Your task to perform on an android device: What's the weather going to be this weekend? Image 0: 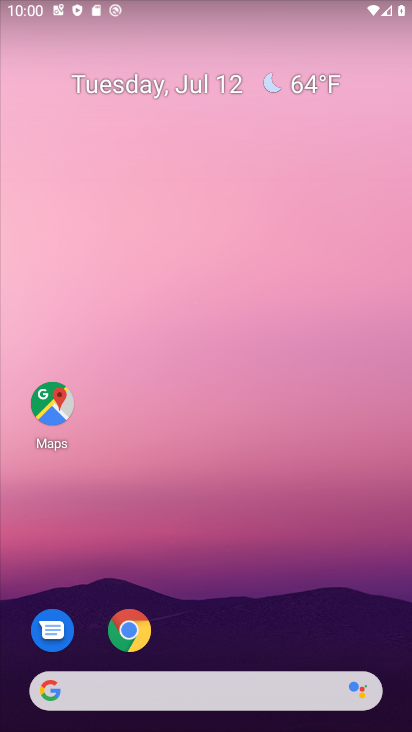
Step 0: drag from (302, 607) to (333, 0)
Your task to perform on an android device: What's the weather going to be this weekend? Image 1: 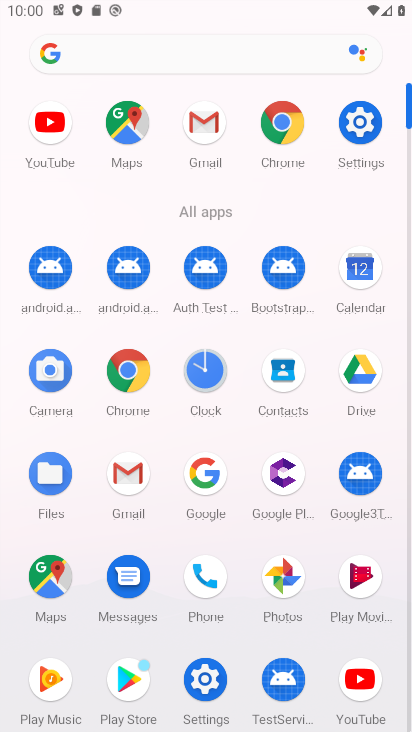
Step 1: click (203, 477)
Your task to perform on an android device: What's the weather going to be this weekend? Image 2: 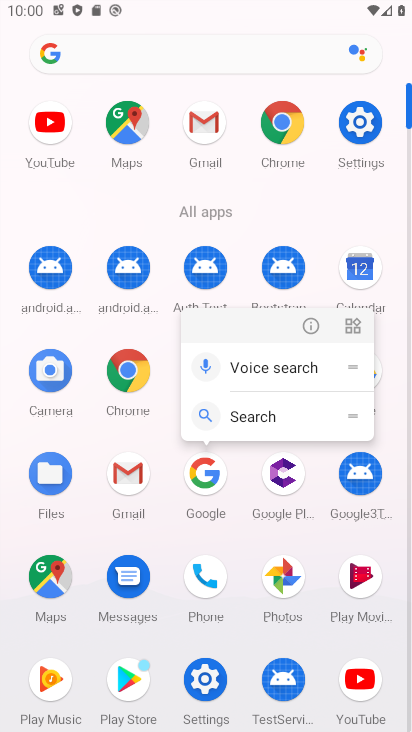
Step 2: click (213, 485)
Your task to perform on an android device: What's the weather going to be this weekend? Image 3: 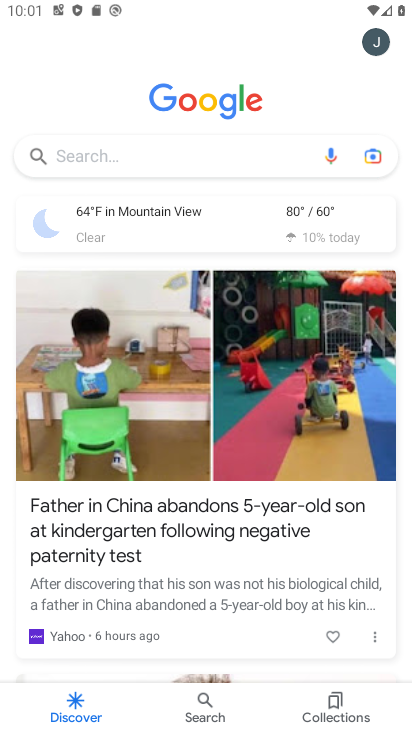
Step 3: click (164, 221)
Your task to perform on an android device: What's the weather going to be this weekend? Image 4: 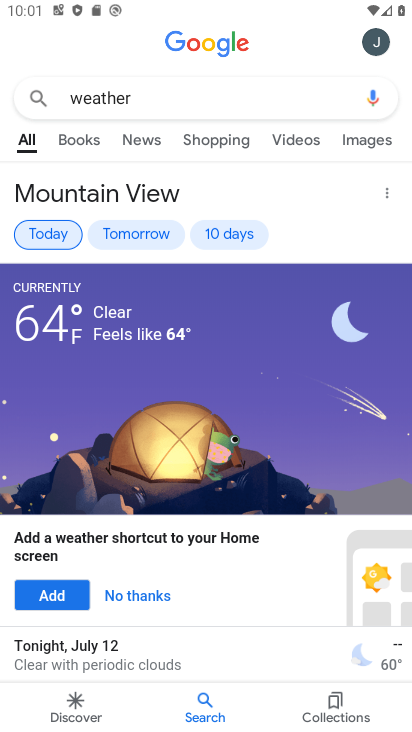
Step 4: task complete